Your task to perform on an android device: find which apps use the phone's location Image 0: 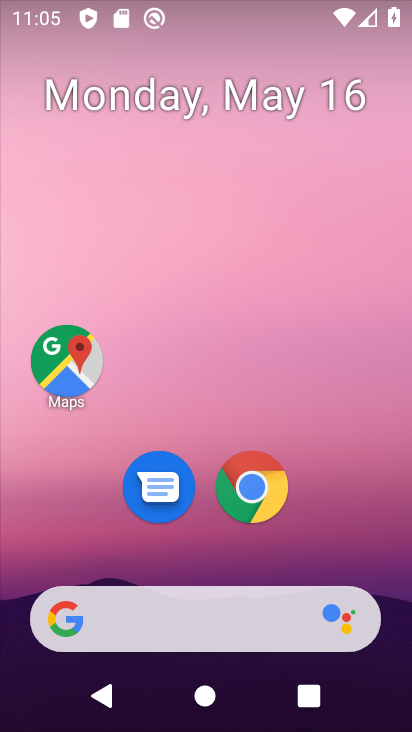
Step 0: drag from (2, 539) to (229, 115)
Your task to perform on an android device: find which apps use the phone's location Image 1: 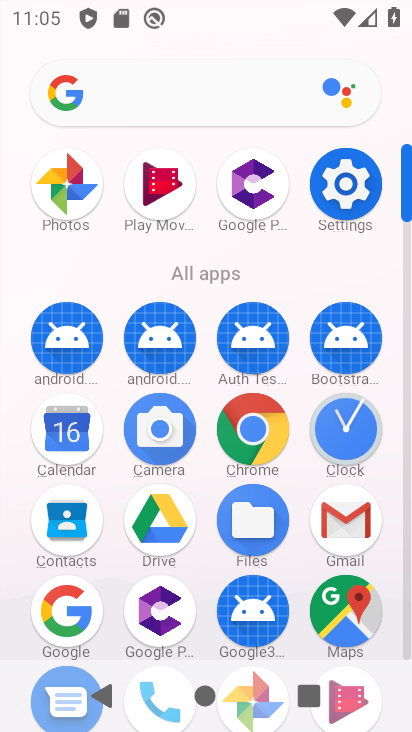
Step 1: click (333, 190)
Your task to perform on an android device: find which apps use the phone's location Image 2: 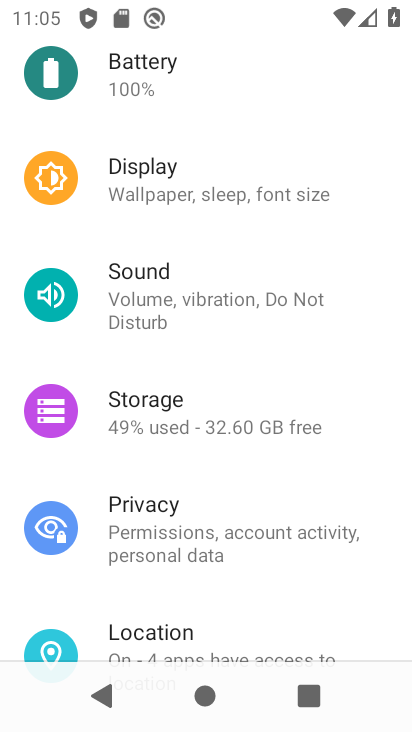
Step 2: click (136, 621)
Your task to perform on an android device: find which apps use the phone's location Image 3: 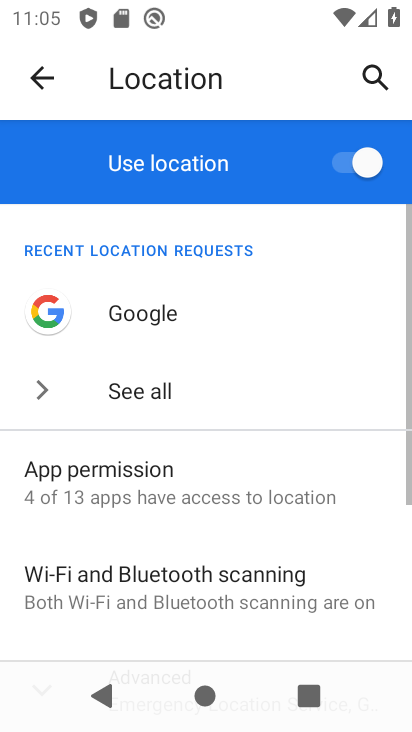
Step 3: click (151, 477)
Your task to perform on an android device: find which apps use the phone's location Image 4: 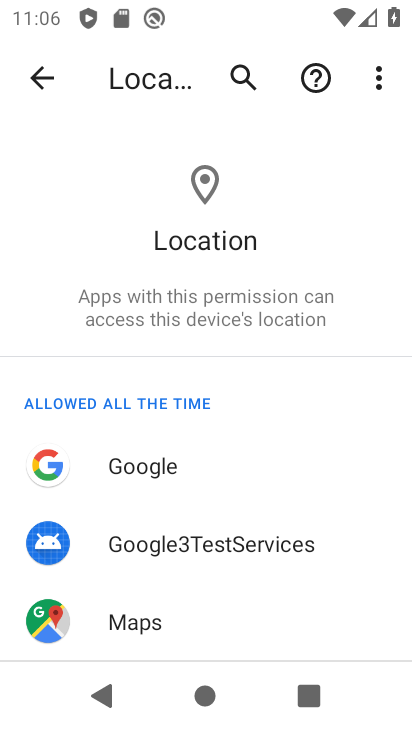
Step 4: task complete